Your task to perform on an android device: uninstall "McDonald's" Image 0: 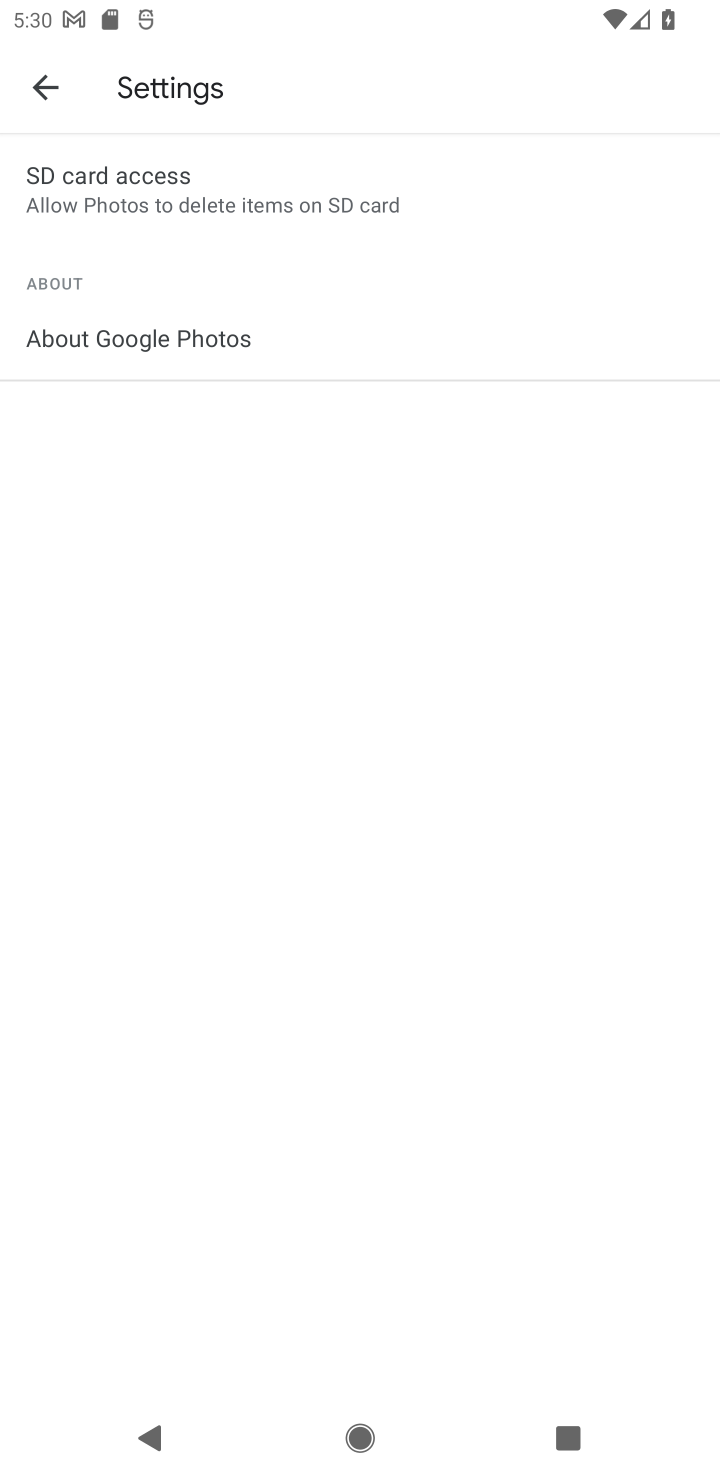
Step 0: press home button
Your task to perform on an android device: uninstall "McDonald's" Image 1: 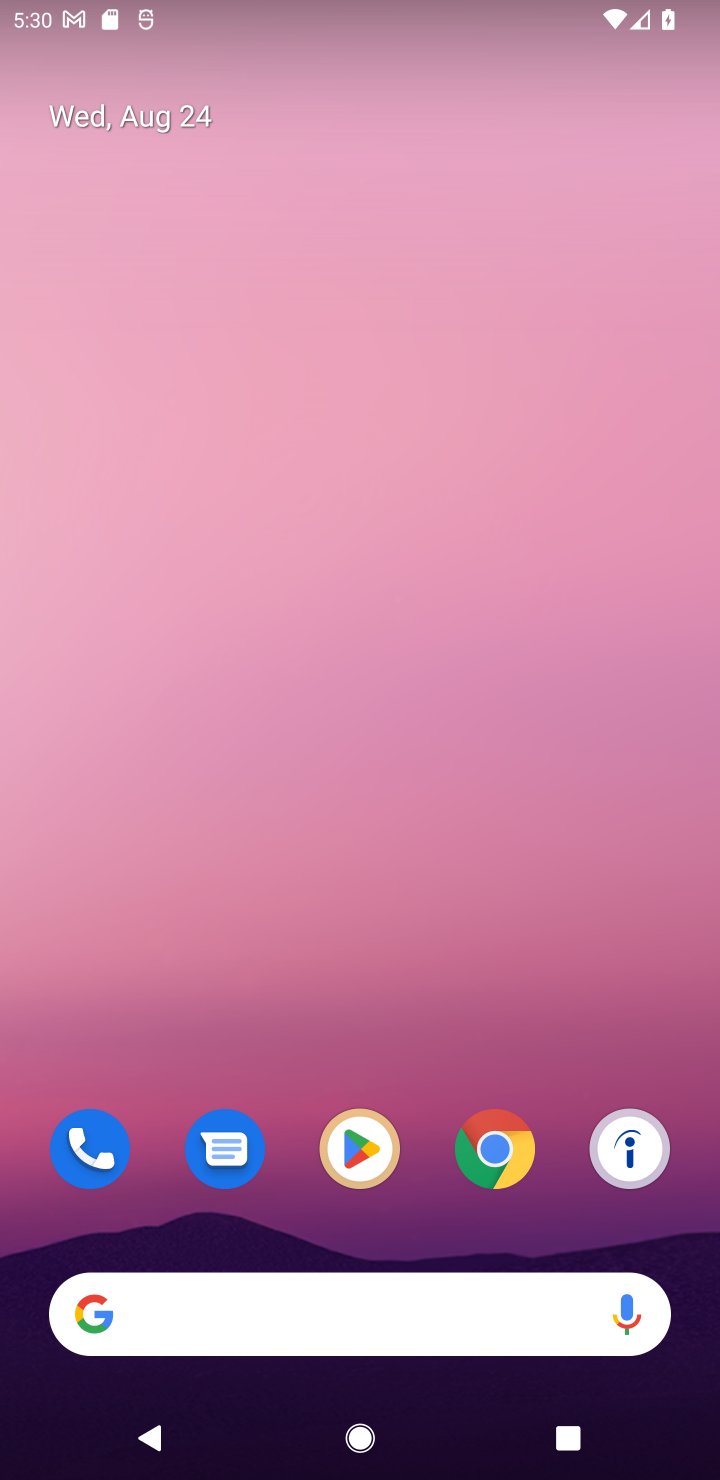
Step 1: click (360, 1148)
Your task to perform on an android device: uninstall "McDonald's" Image 2: 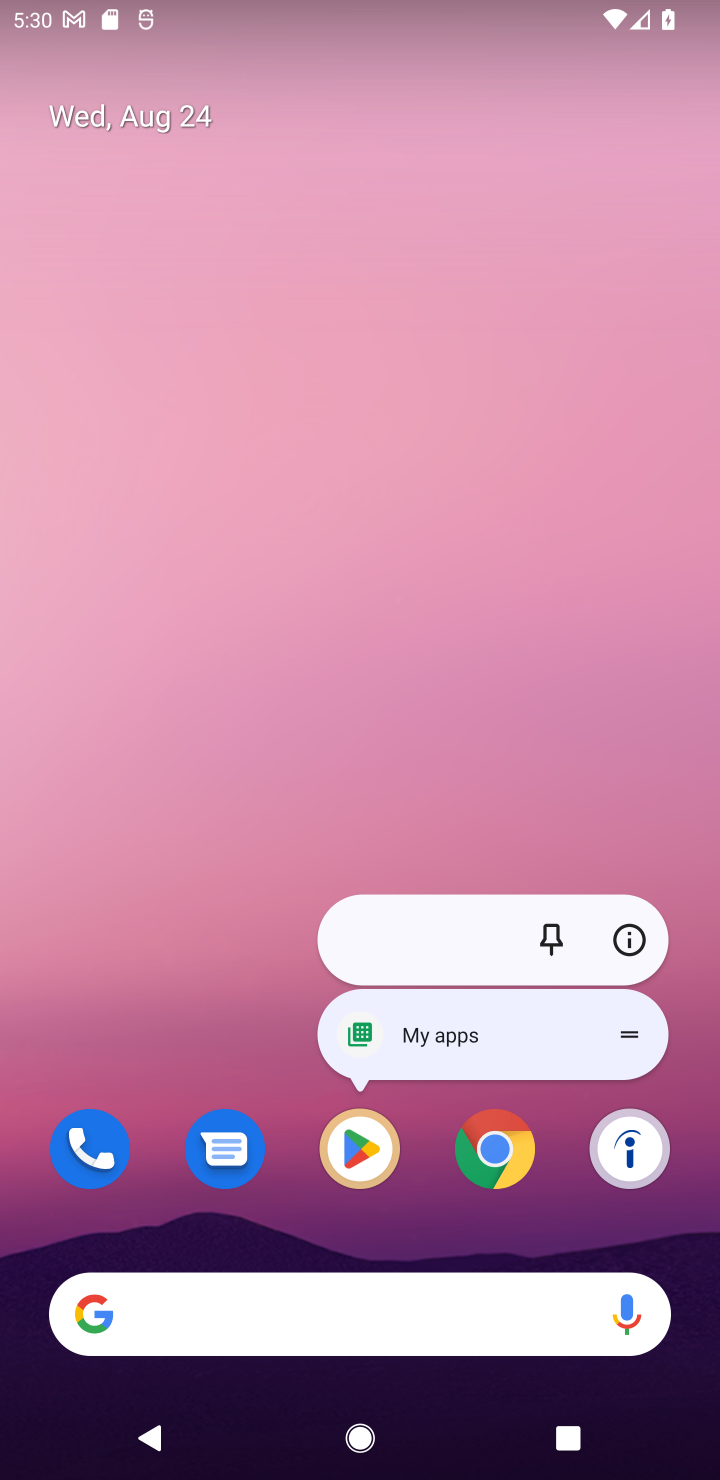
Step 2: click (354, 1146)
Your task to perform on an android device: uninstall "McDonald's" Image 3: 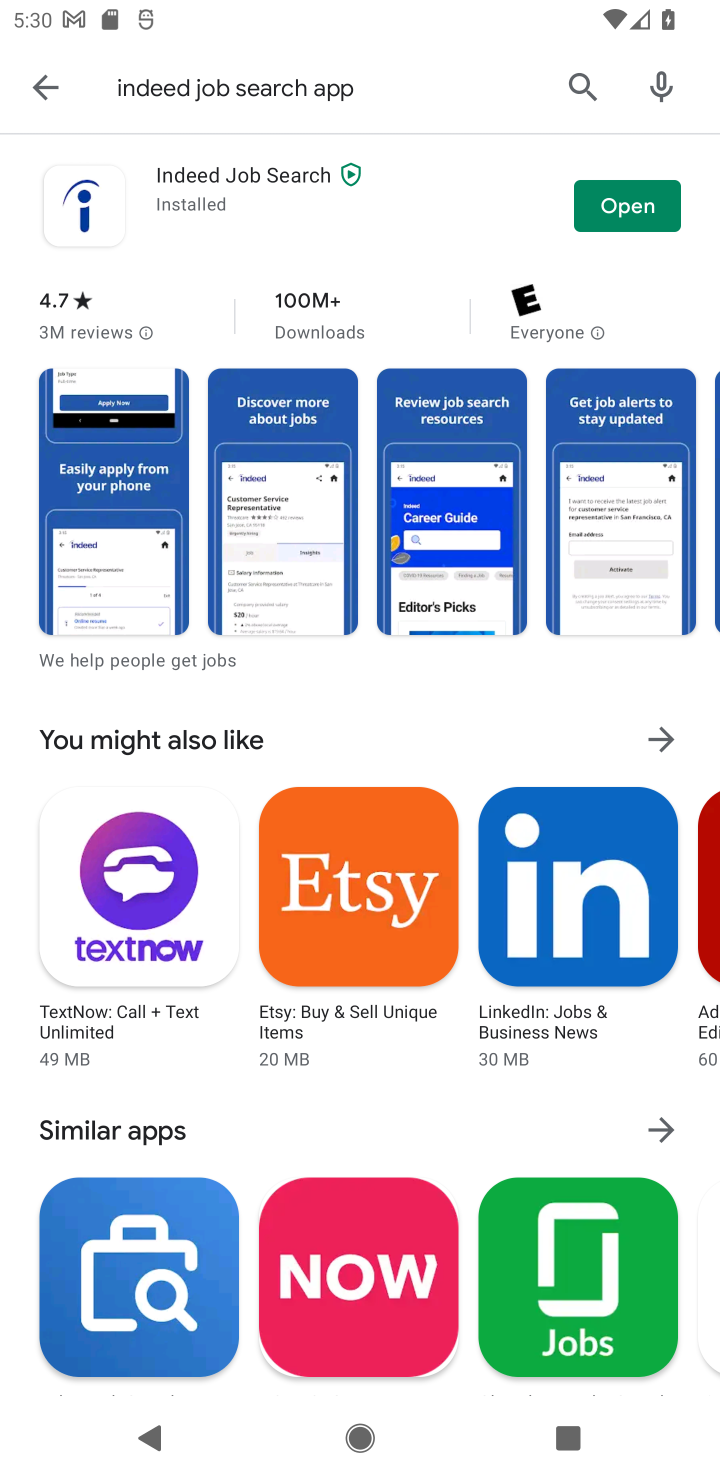
Step 3: click (574, 71)
Your task to perform on an android device: uninstall "McDonald's" Image 4: 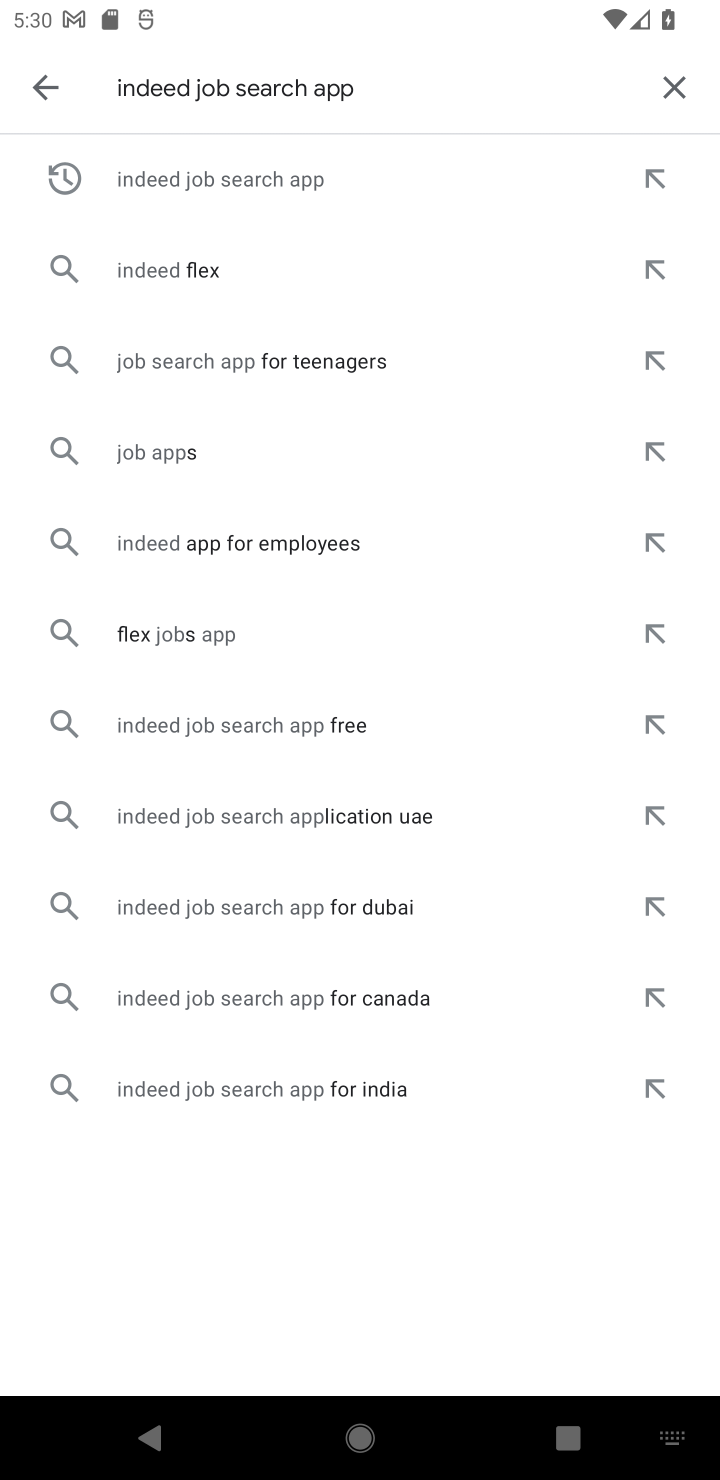
Step 4: click (656, 78)
Your task to perform on an android device: uninstall "McDonald's" Image 5: 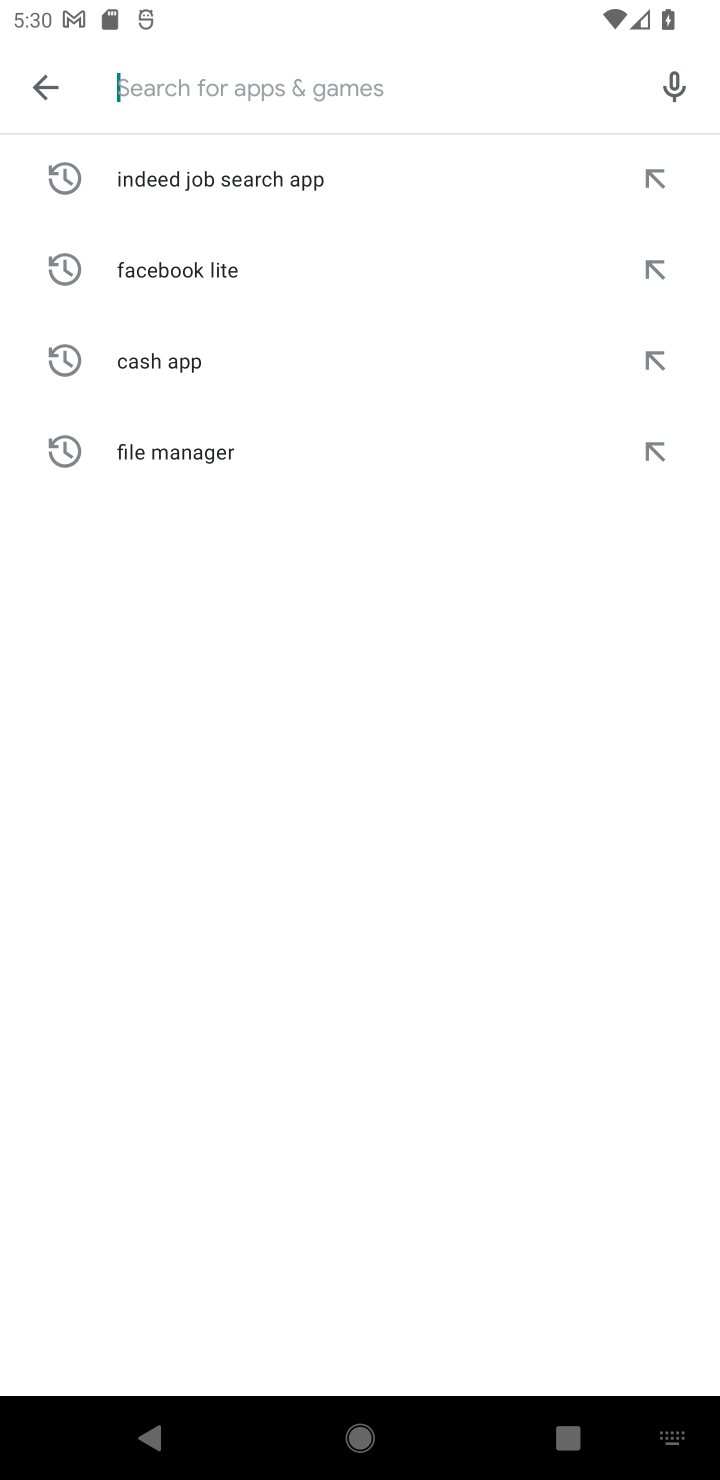
Step 5: type "McDonald's"
Your task to perform on an android device: uninstall "McDonald's" Image 6: 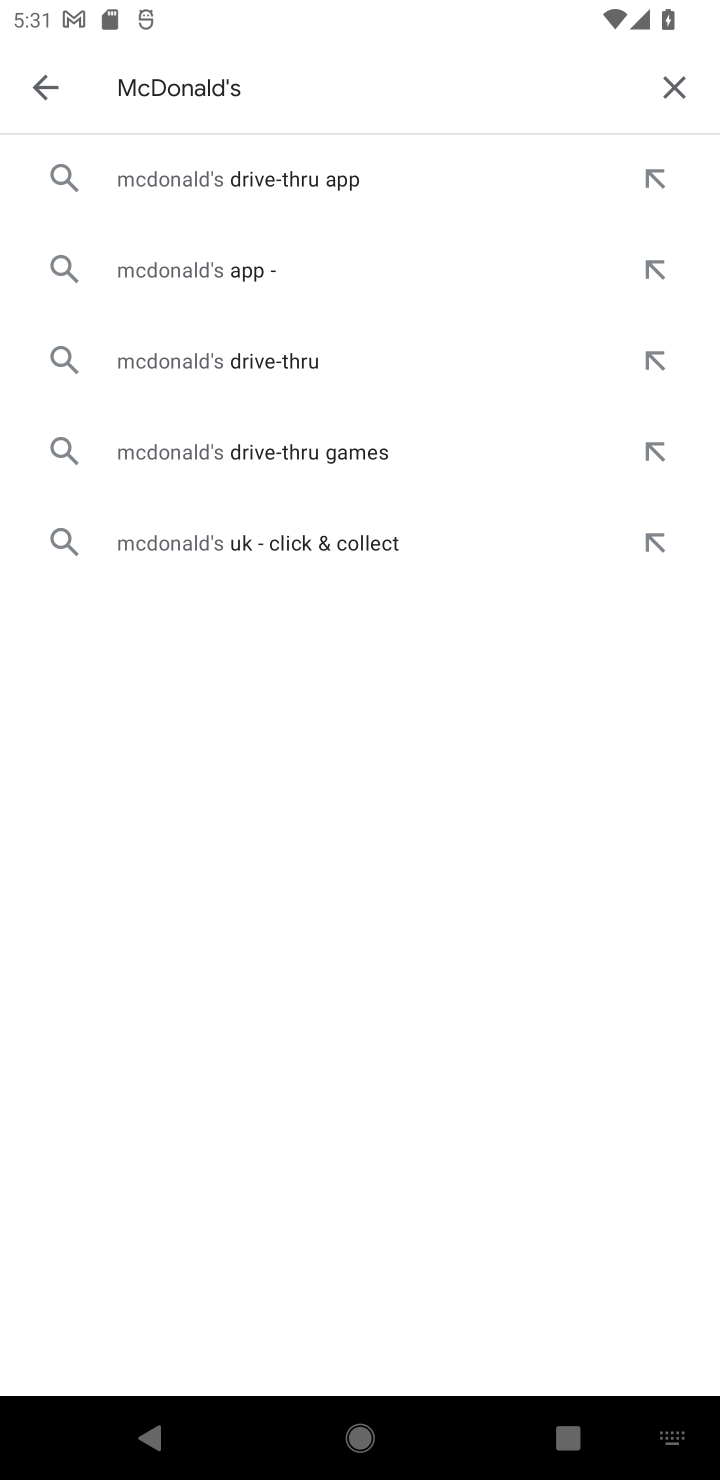
Step 6: click (262, 172)
Your task to perform on an android device: uninstall "McDonald's" Image 7: 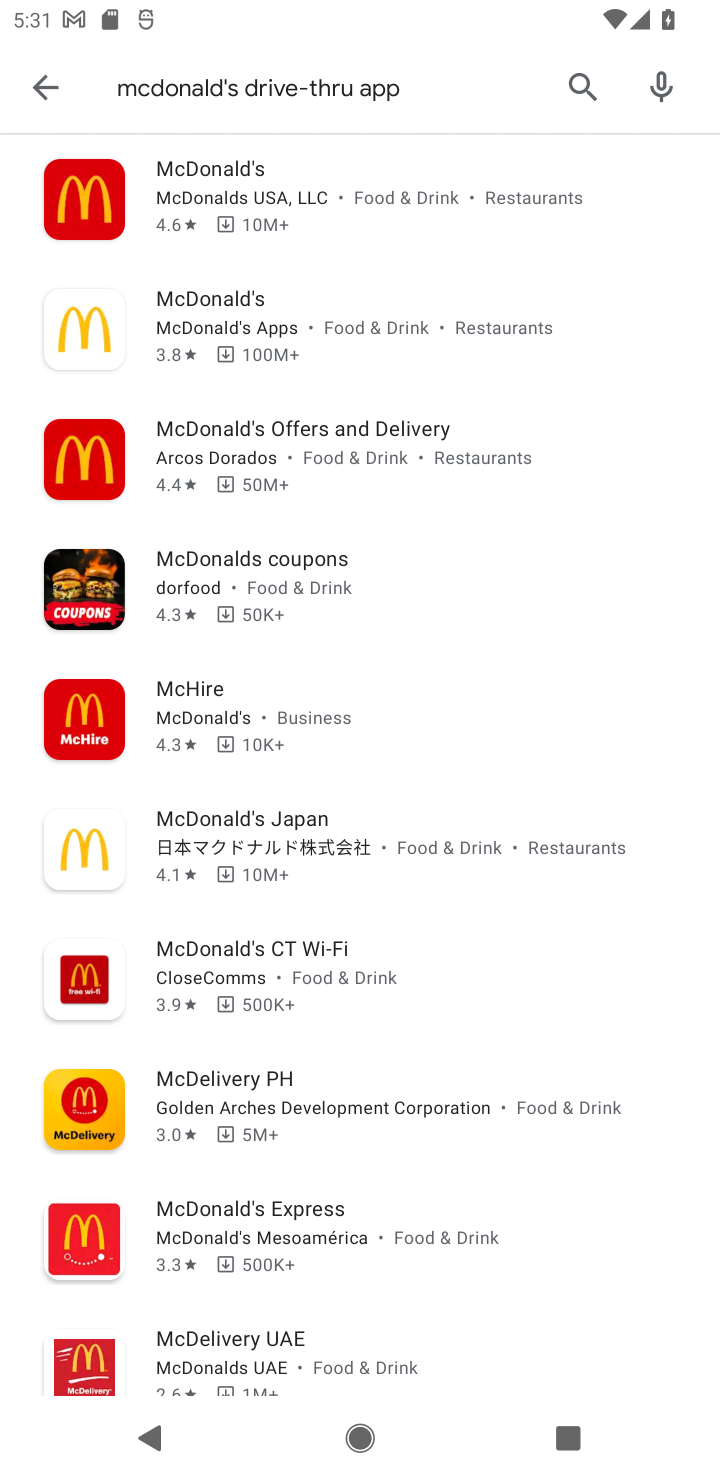
Step 7: click (291, 191)
Your task to perform on an android device: uninstall "McDonald's" Image 8: 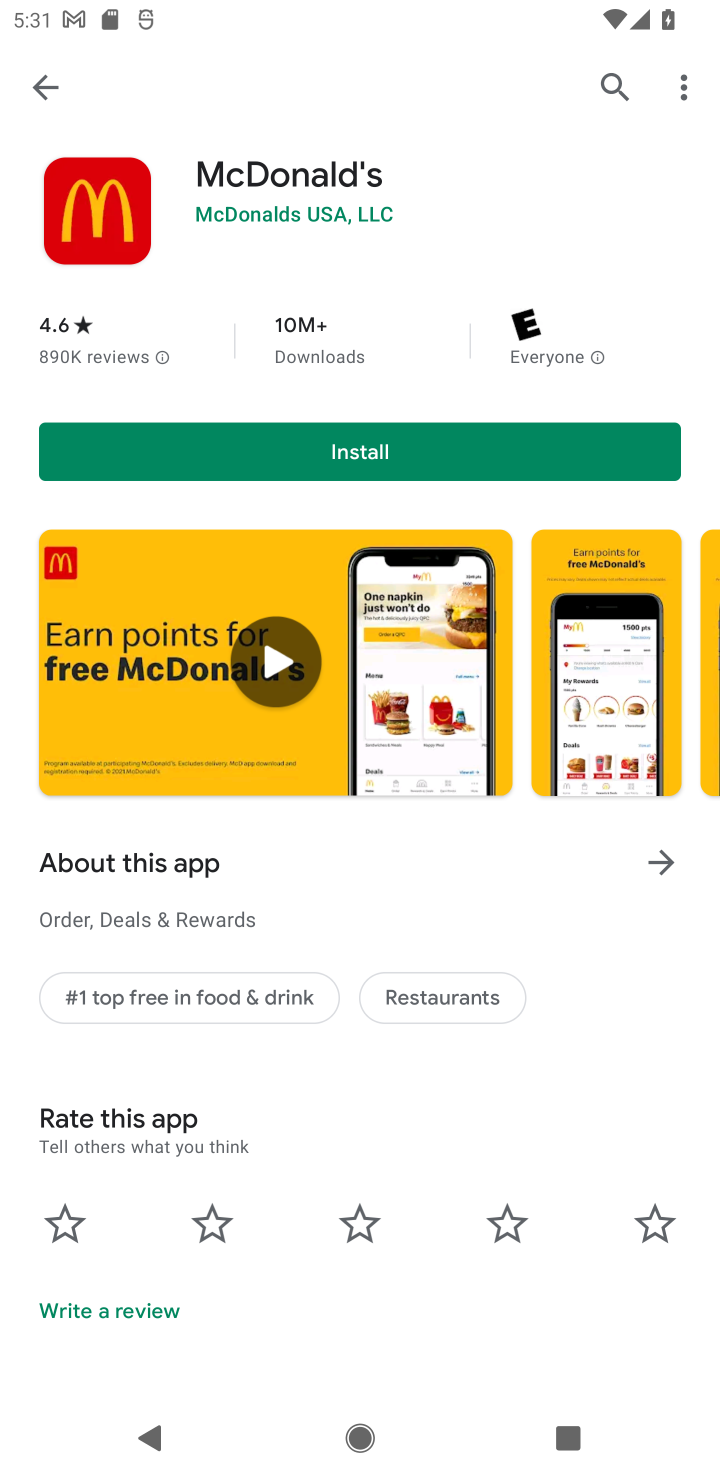
Step 8: task complete